Your task to perform on an android device: Go to wifi settings Image 0: 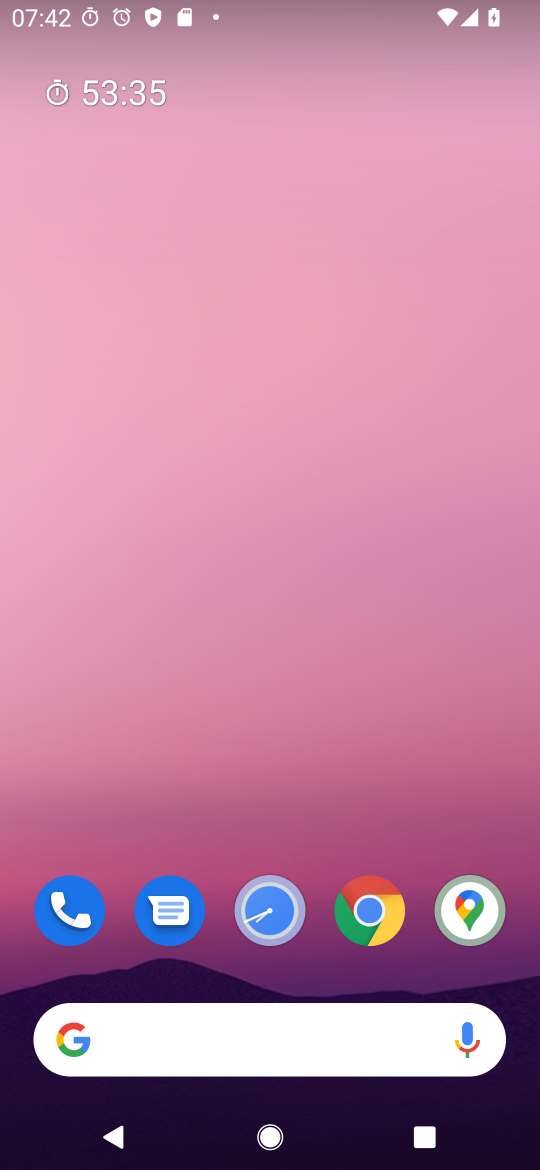
Step 0: drag from (260, 1035) to (258, 47)
Your task to perform on an android device: Go to wifi settings Image 1: 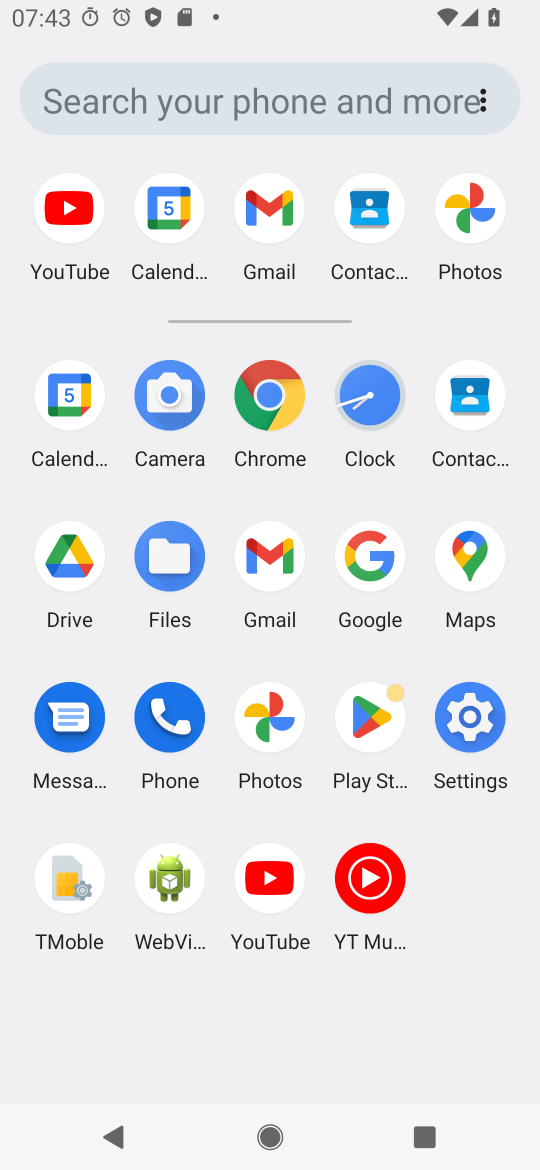
Step 1: click (466, 699)
Your task to perform on an android device: Go to wifi settings Image 2: 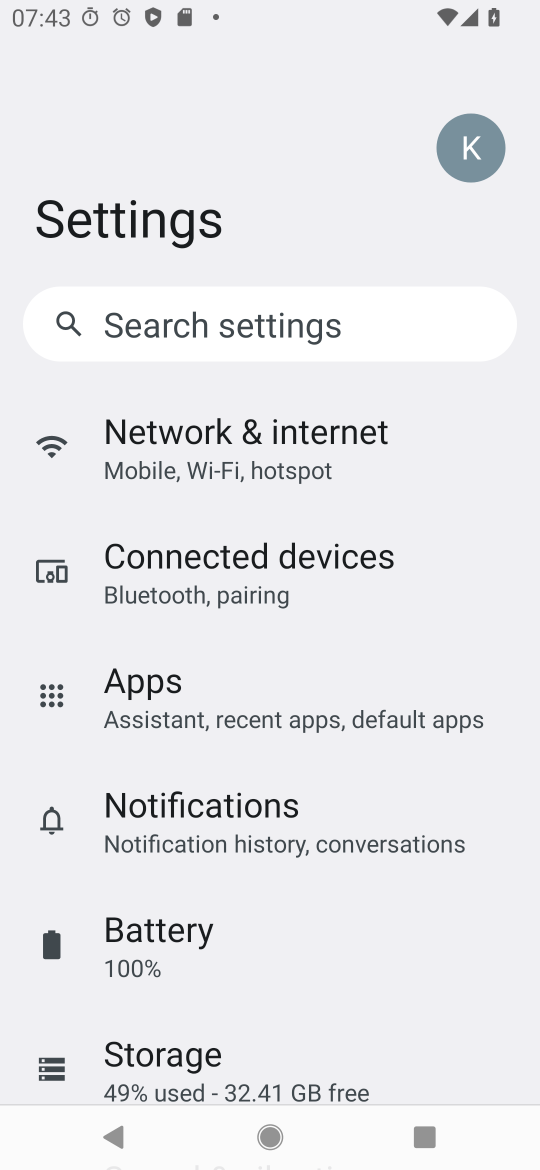
Step 2: click (284, 443)
Your task to perform on an android device: Go to wifi settings Image 3: 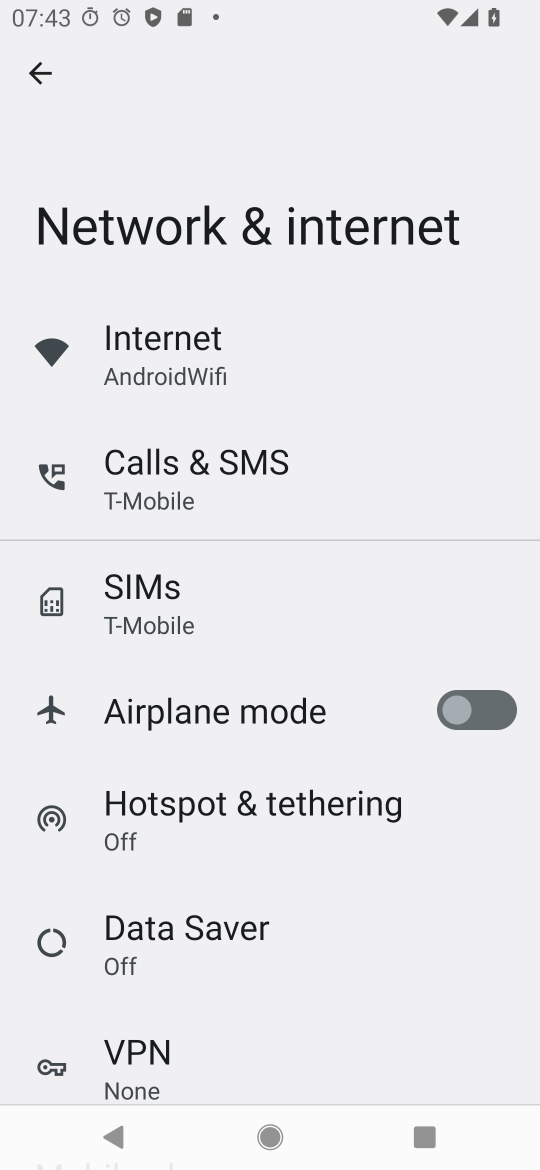
Step 3: click (217, 370)
Your task to perform on an android device: Go to wifi settings Image 4: 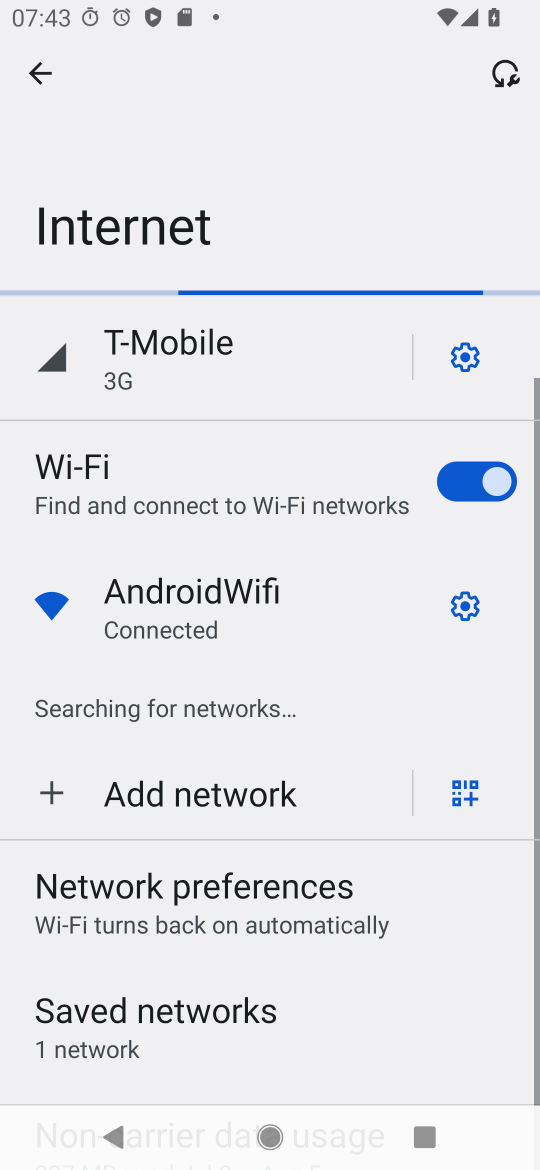
Step 4: task complete